Your task to perform on an android device: change the clock style Image 0: 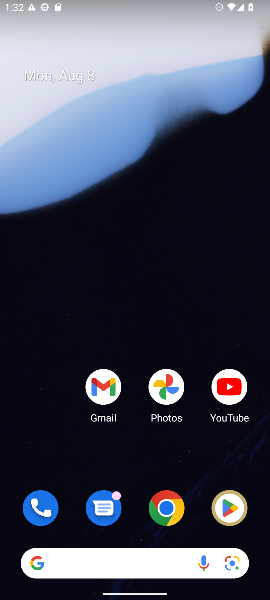
Step 0: drag from (131, 362) to (120, 189)
Your task to perform on an android device: change the clock style Image 1: 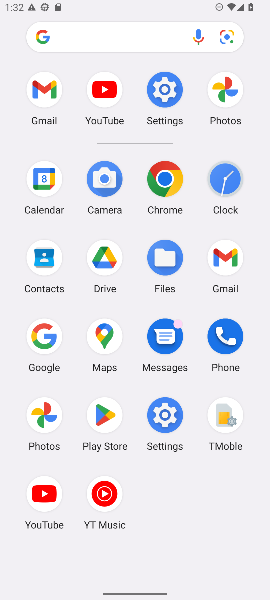
Step 1: drag from (136, 502) to (136, 223)
Your task to perform on an android device: change the clock style Image 2: 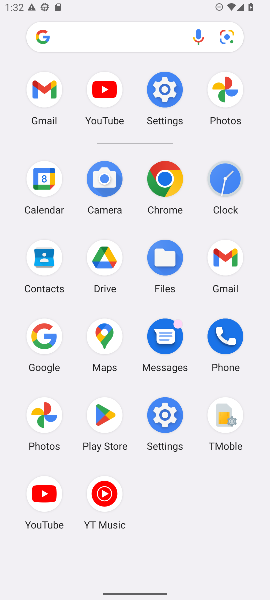
Step 2: click (120, 79)
Your task to perform on an android device: change the clock style Image 3: 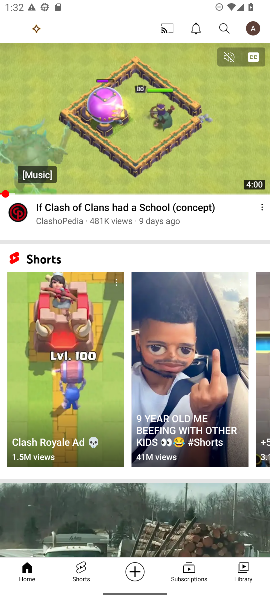
Step 3: click (224, 196)
Your task to perform on an android device: change the clock style Image 4: 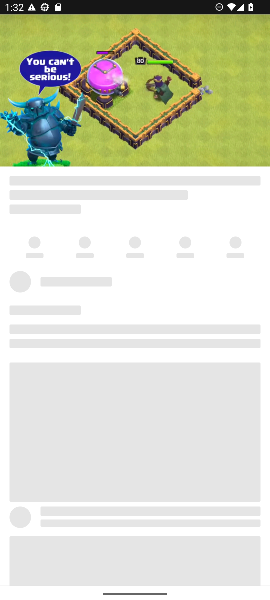
Step 4: press back button
Your task to perform on an android device: change the clock style Image 5: 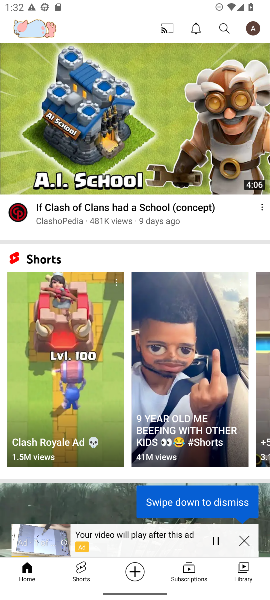
Step 5: press back button
Your task to perform on an android device: change the clock style Image 6: 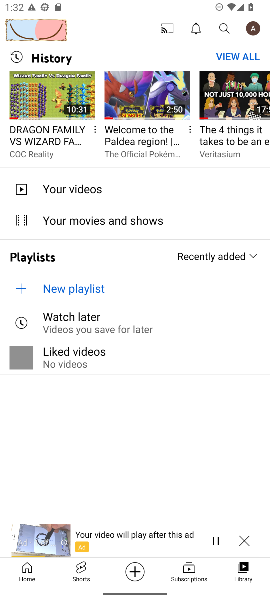
Step 6: press home button
Your task to perform on an android device: change the clock style Image 7: 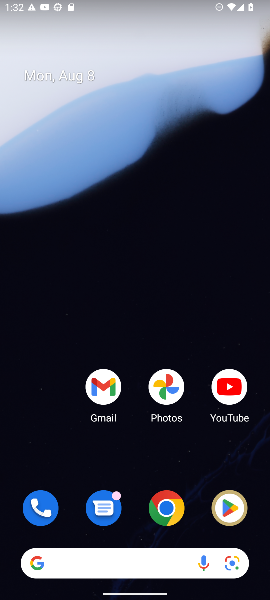
Step 7: drag from (126, 522) to (116, 112)
Your task to perform on an android device: change the clock style Image 8: 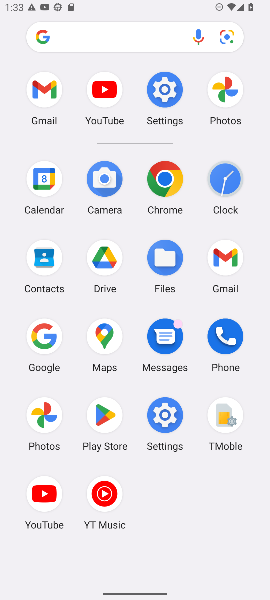
Step 8: click (221, 192)
Your task to perform on an android device: change the clock style Image 9: 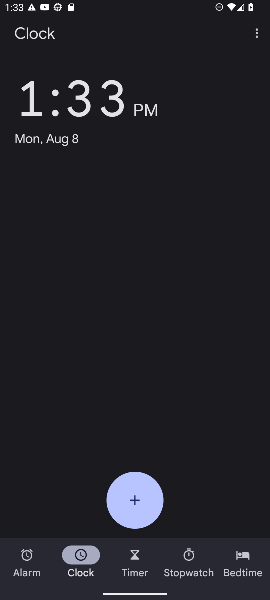
Step 9: click (259, 34)
Your task to perform on an android device: change the clock style Image 10: 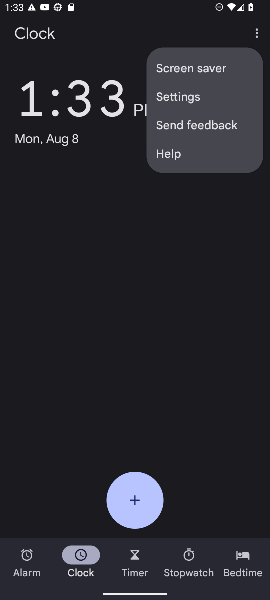
Step 10: click (185, 99)
Your task to perform on an android device: change the clock style Image 11: 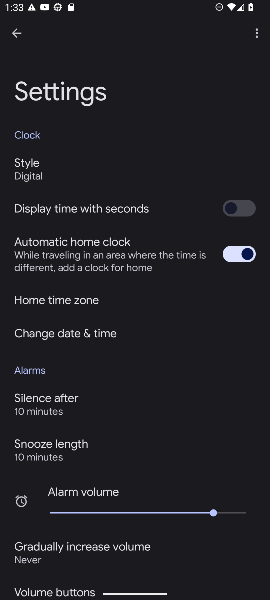
Step 11: click (36, 167)
Your task to perform on an android device: change the clock style Image 12: 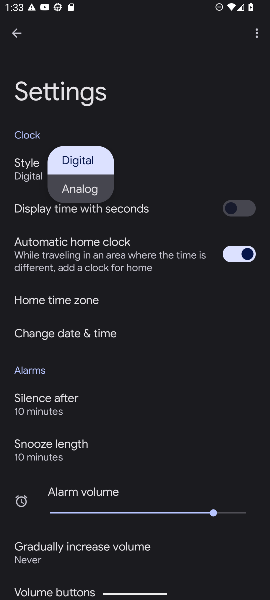
Step 12: click (53, 179)
Your task to perform on an android device: change the clock style Image 13: 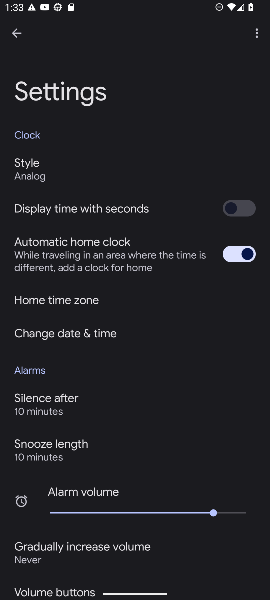
Step 13: task complete